Your task to perform on an android device: uninstall "PlayWell" Image 0: 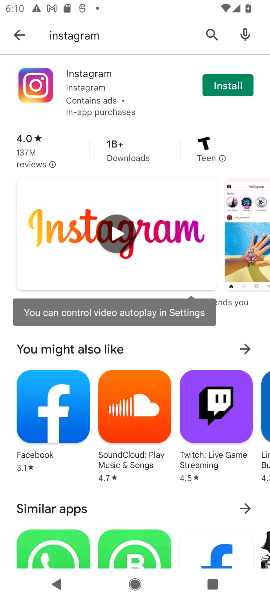
Step 0: press home button
Your task to perform on an android device: uninstall "PlayWell" Image 1: 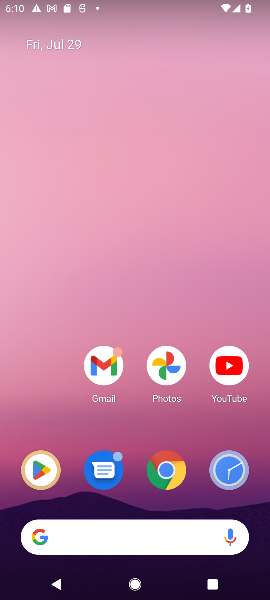
Step 1: drag from (198, 427) to (208, 4)
Your task to perform on an android device: uninstall "PlayWell" Image 2: 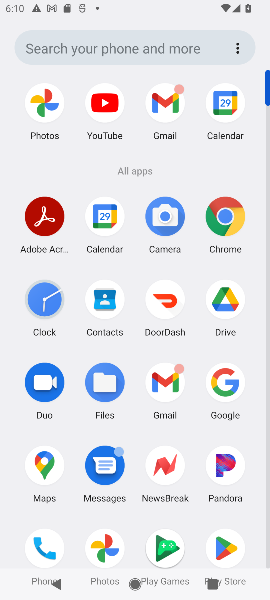
Step 2: click (231, 552)
Your task to perform on an android device: uninstall "PlayWell" Image 3: 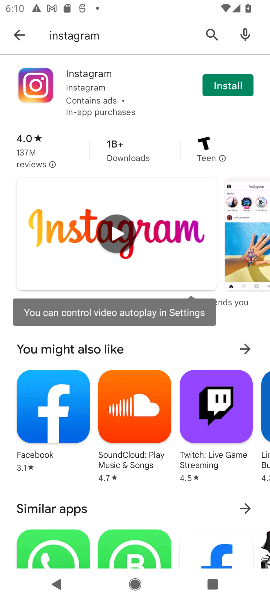
Step 3: click (134, 40)
Your task to perform on an android device: uninstall "PlayWell" Image 4: 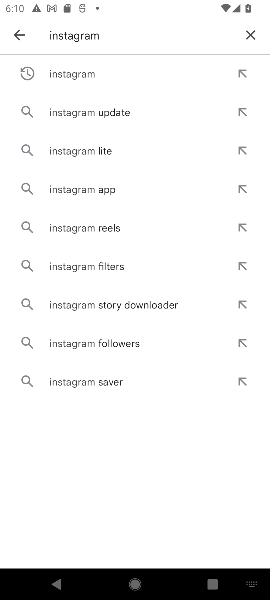
Step 4: click (258, 37)
Your task to perform on an android device: uninstall "PlayWell" Image 5: 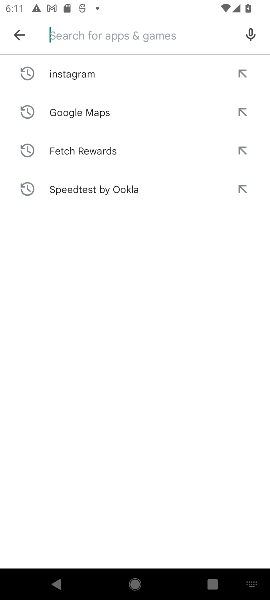
Step 5: type "PlayWell"
Your task to perform on an android device: uninstall "PlayWell" Image 6: 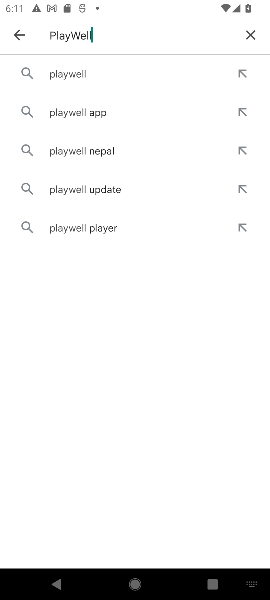
Step 6: press enter
Your task to perform on an android device: uninstall "PlayWell" Image 7: 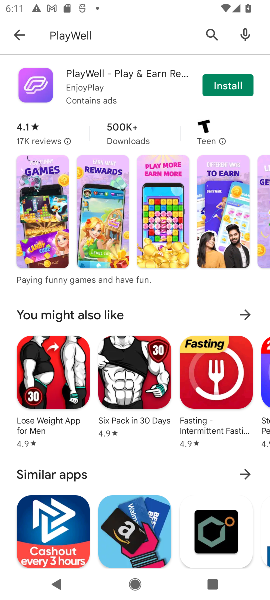
Step 7: task complete